Your task to perform on an android device: clear history in the chrome app Image 0: 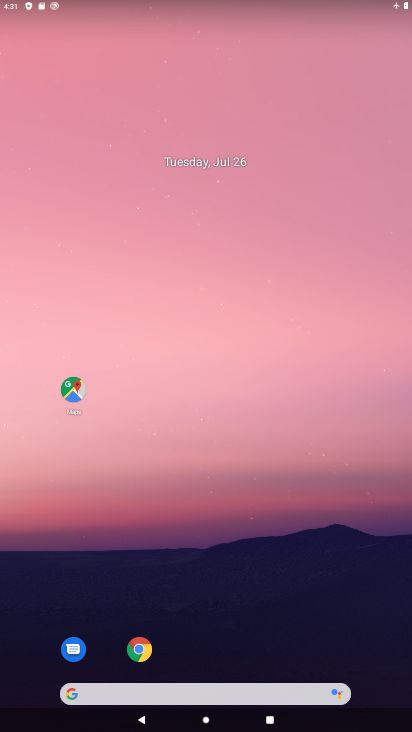
Step 0: click (198, 640)
Your task to perform on an android device: clear history in the chrome app Image 1: 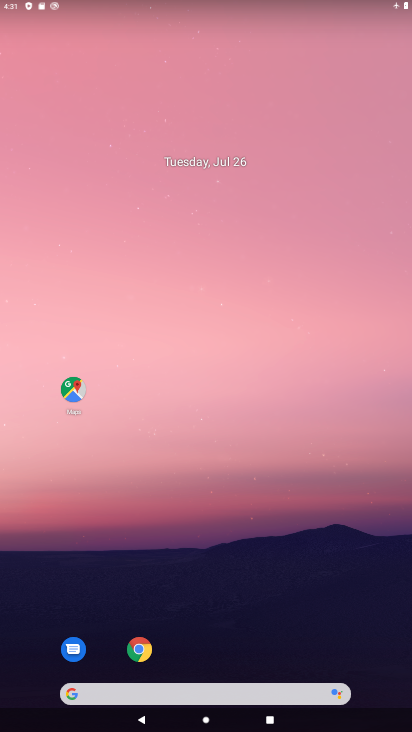
Step 1: click (132, 646)
Your task to perform on an android device: clear history in the chrome app Image 2: 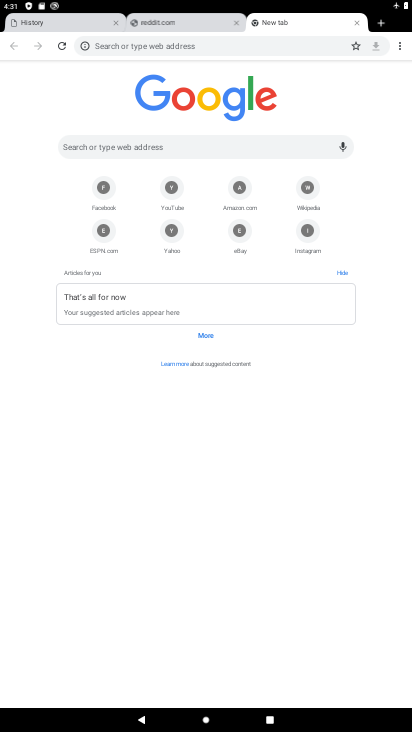
Step 2: click (397, 44)
Your task to perform on an android device: clear history in the chrome app Image 3: 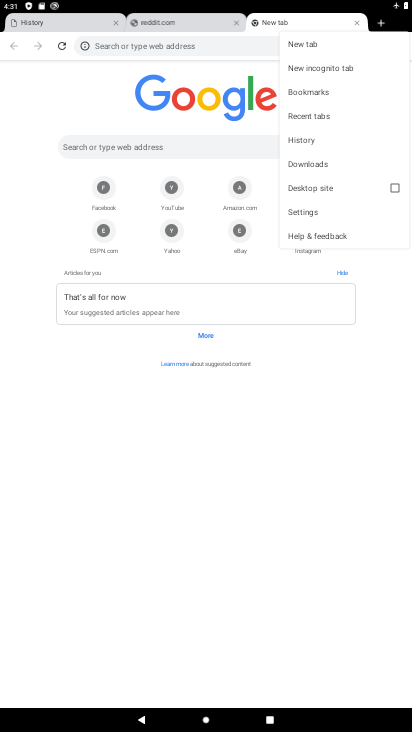
Step 3: click (316, 139)
Your task to perform on an android device: clear history in the chrome app Image 4: 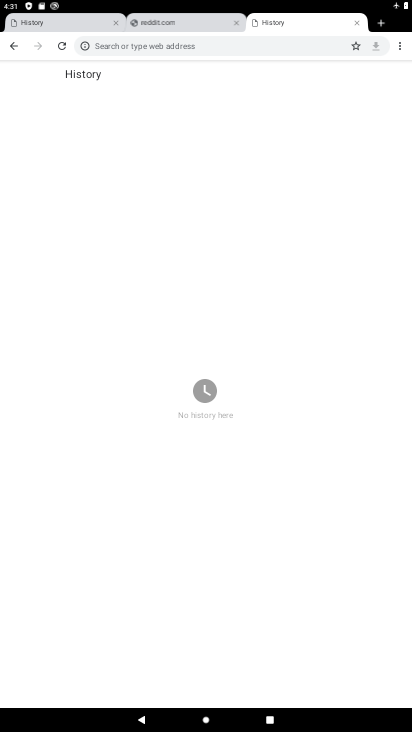
Step 4: task complete